Your task to perform on an android device: change the clock display to analog Image 0: 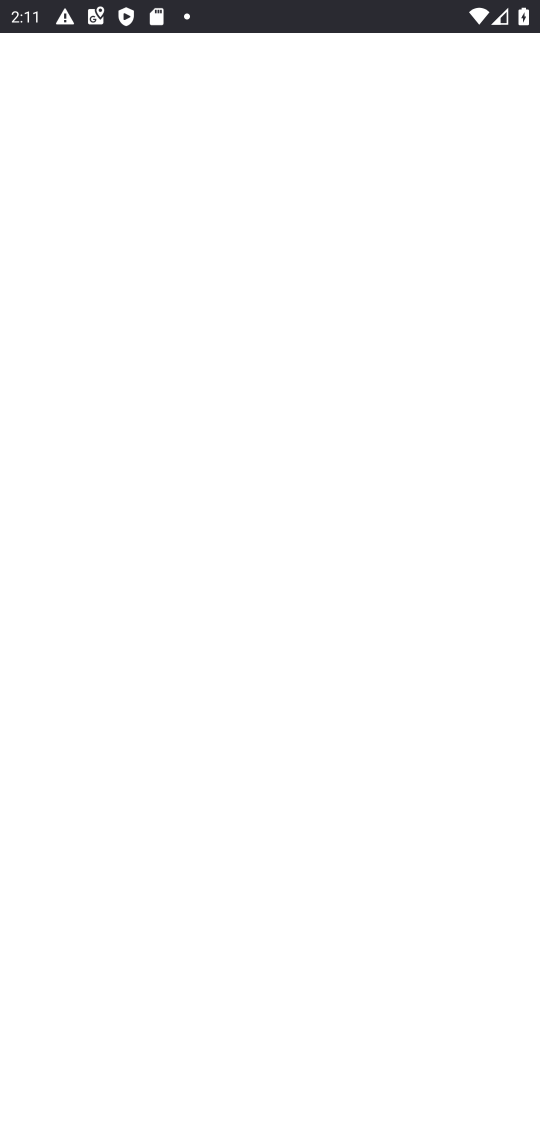
Step 0: press home button
Your task to perform on an android device: change the clock display to analog Image 1: 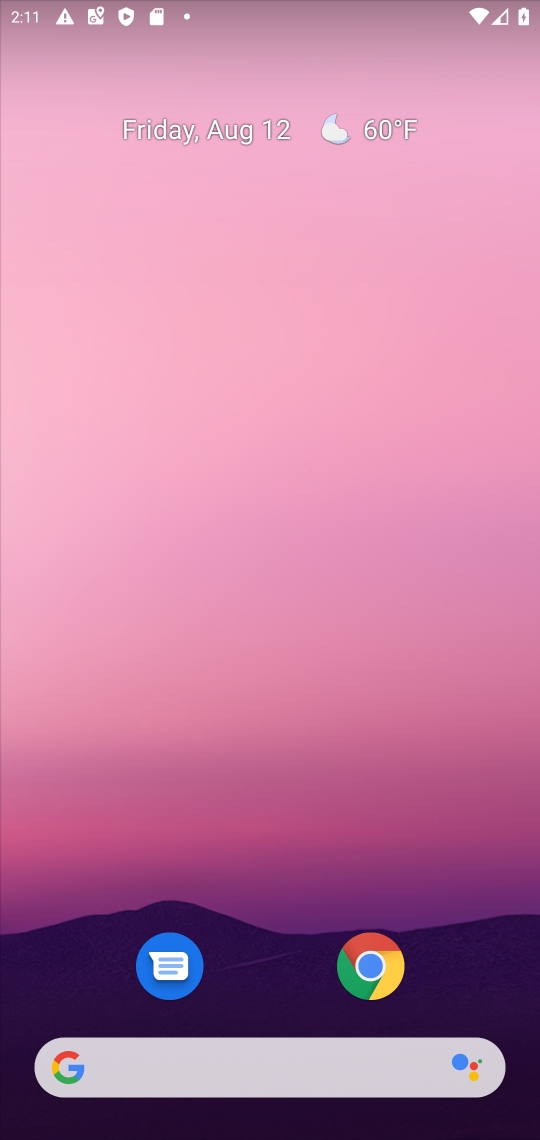
Step 1: drag from (268, 892) to (231, 703)
Your task to perform on an android device: change the clock display to analog Image 2: 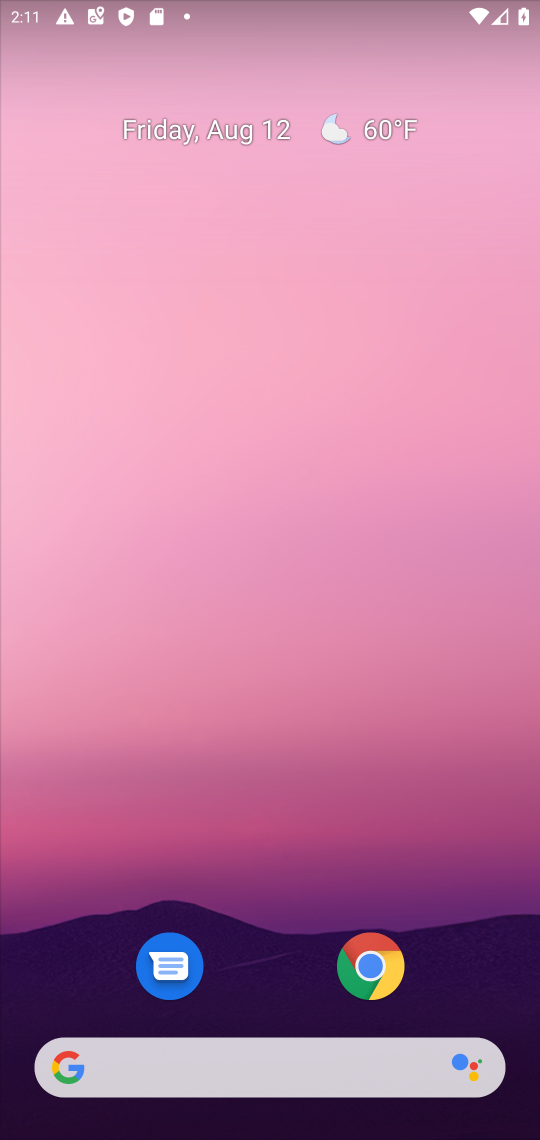
Step 2: drag from (266, 851) to (173, 107)
Your task to perform on an android device: change the clock display to analog Image 3: 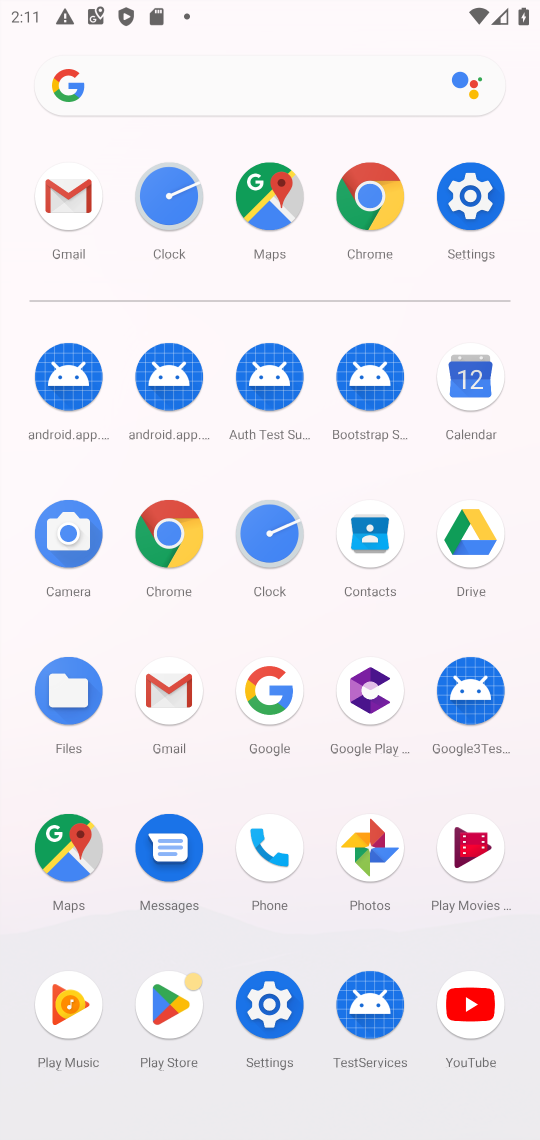
Step 3: click (271, 533)
Your task to perform on an android device: change the clock display to analog Image 4: 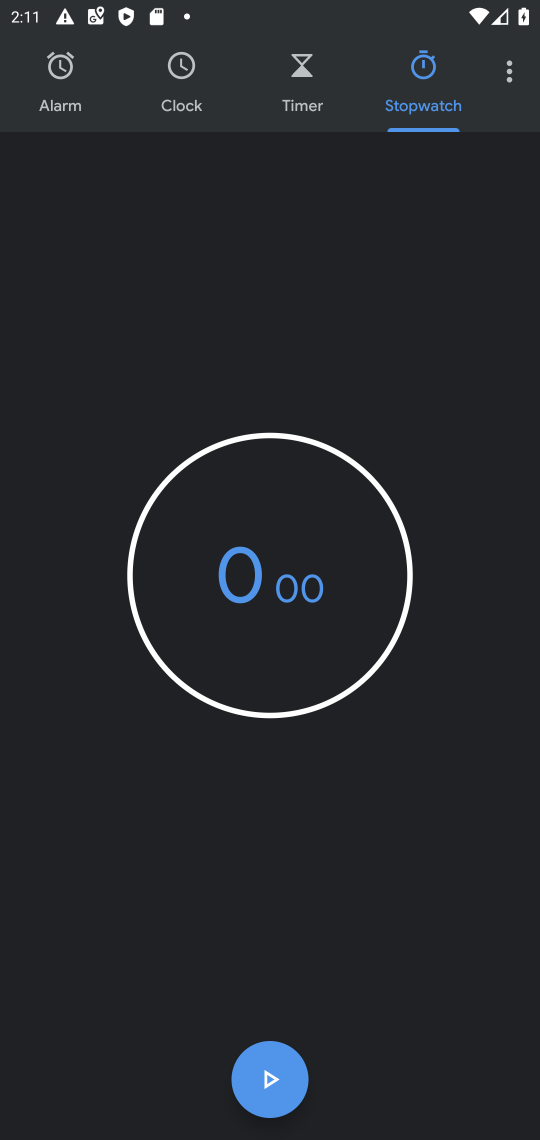
Step 4: click (509, 67)
Your task to perform on an android device: change the clock display to analog Image 5: 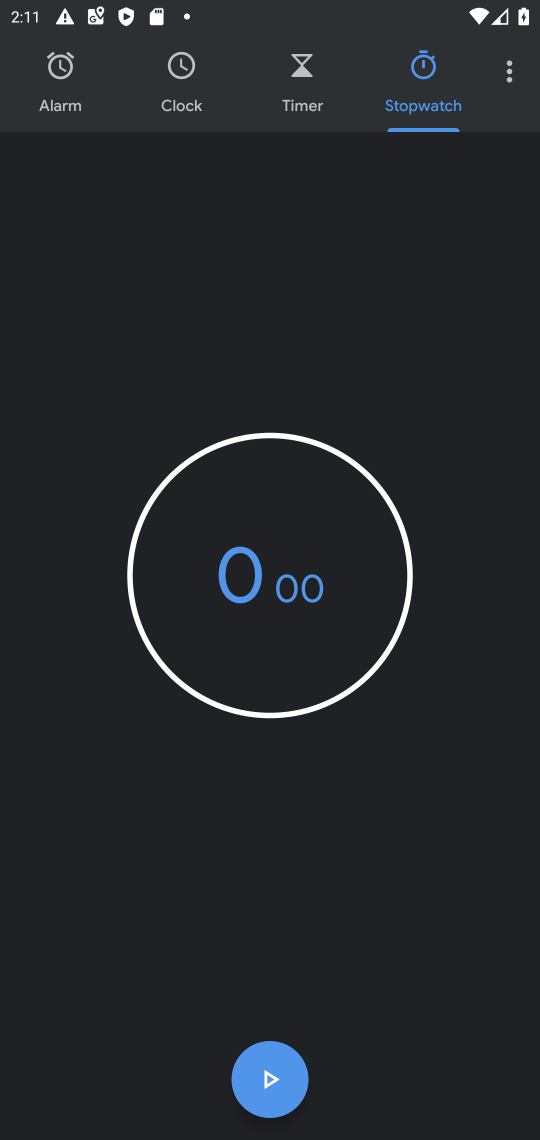
Step 5: click (499, 80)
Your task to perform on an android device: change the clock display to analog Image 6: 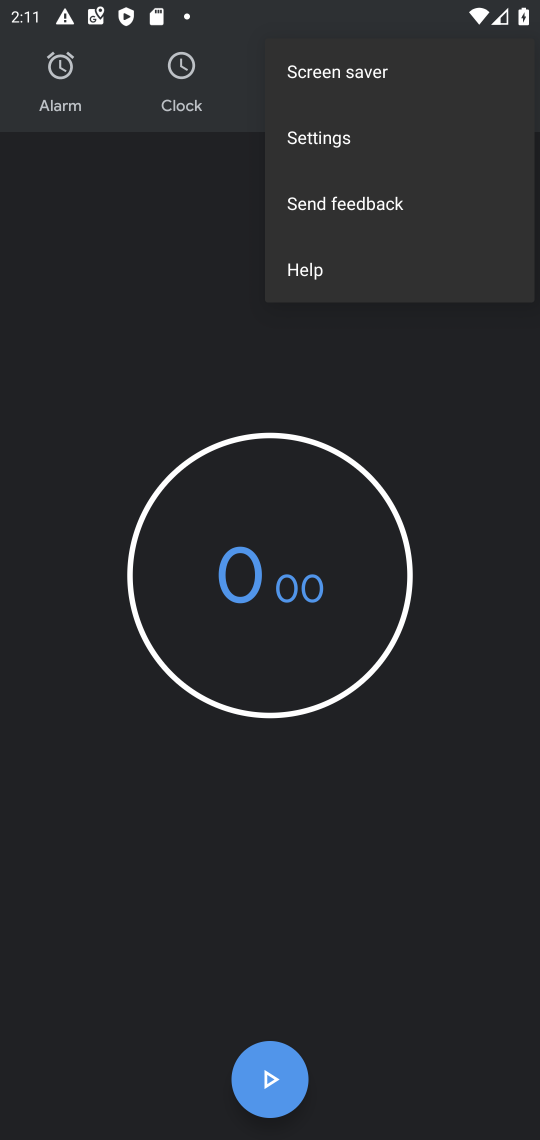
Step 6: click (429, 139)
Your task to perform on an android device: change the clock display to analog Image 7: 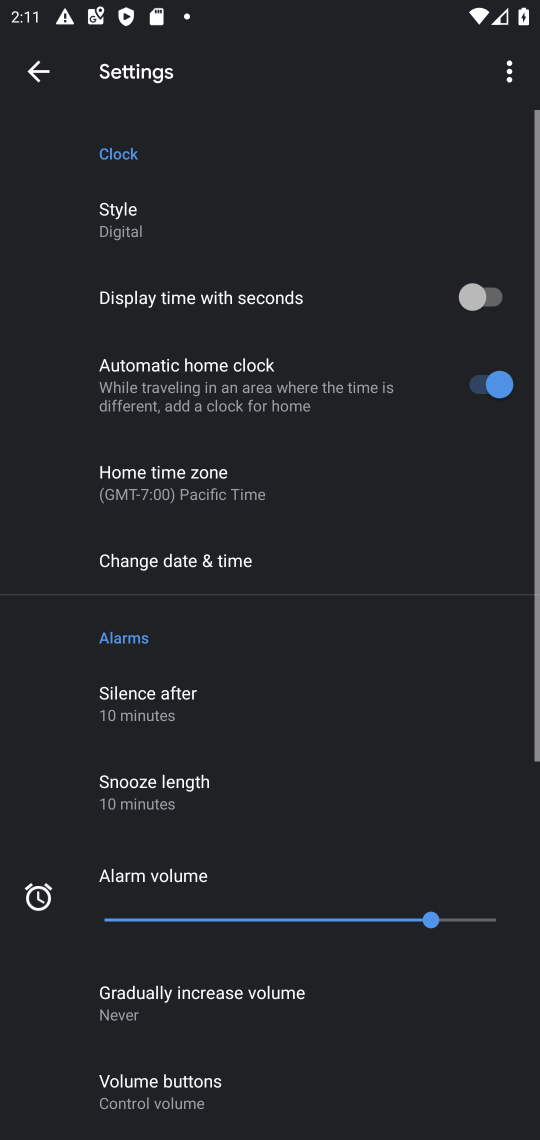
Step 7: click (179, 208)
Your task to perform on an android device: change the clock display to analog Image 8: 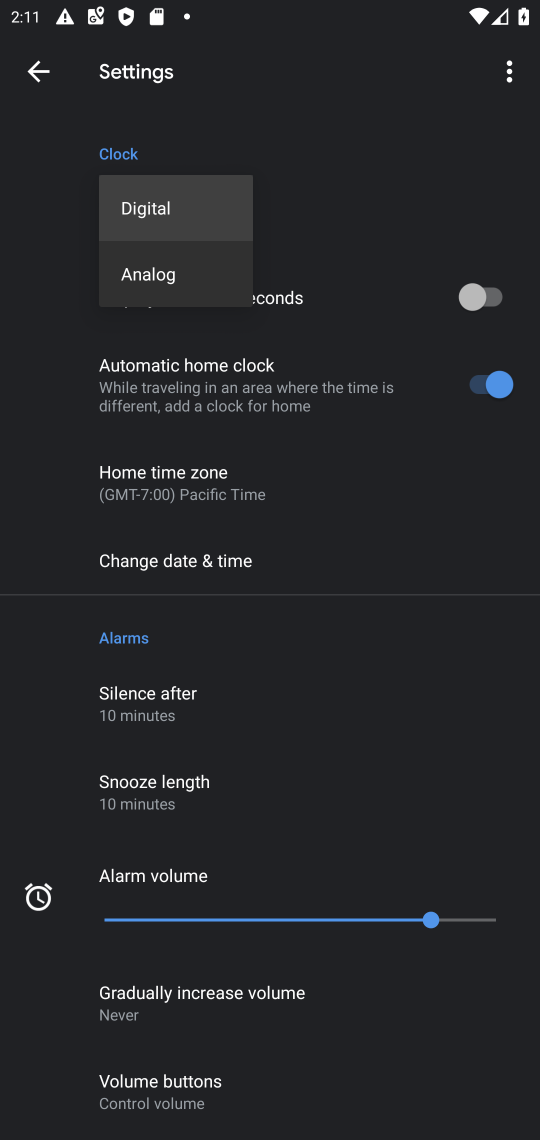
Step 8: click (181, 265)
Your task to perform on an android device: change the clock display to analog Image 9: 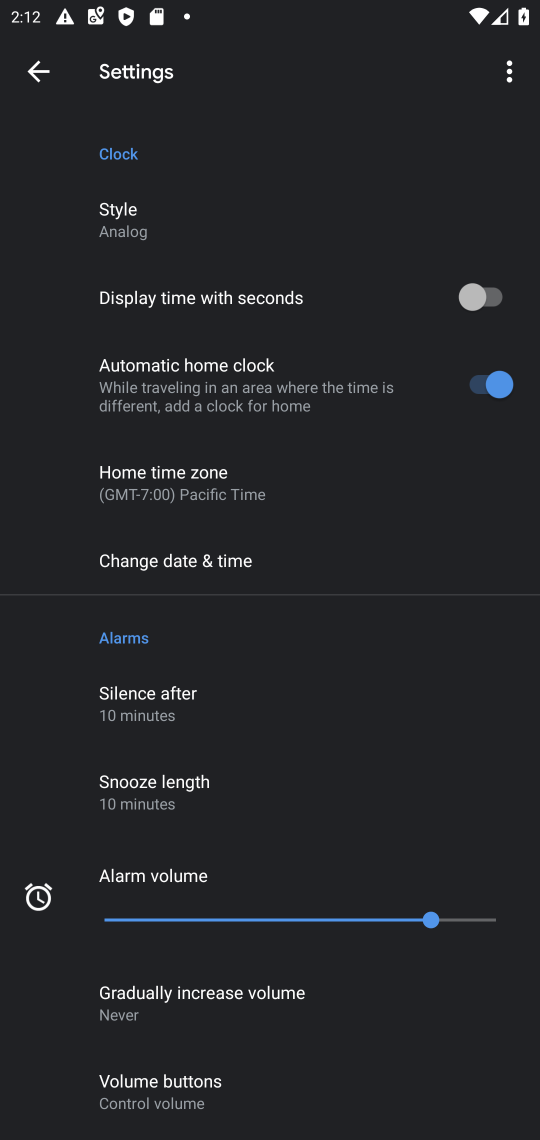
Step 9: task complete